Your task to perform on an android device: toggle sleep mode Image 0: 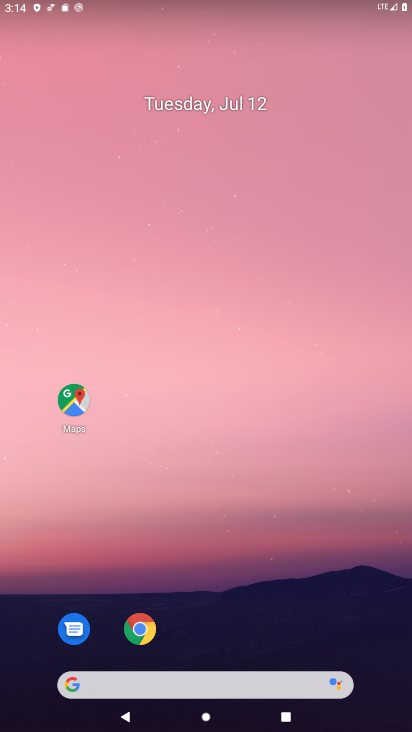
Step 0: press home button
Your task to perform on an android device: toggle sleep mode Image 1: 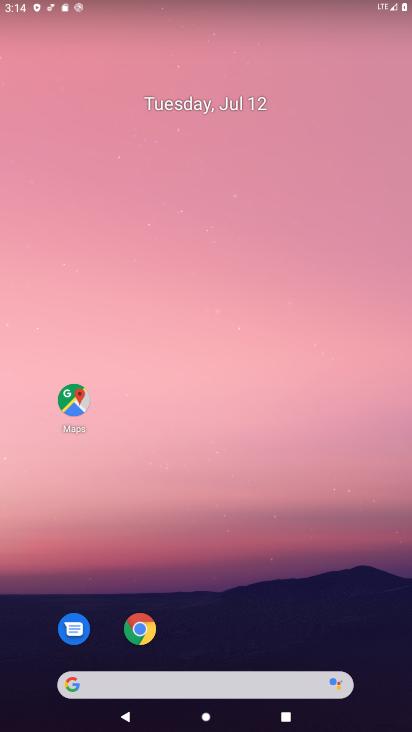
Step 1: drag from (287, 668) to (370, 58)
Your task to perform on an android device: toggle sleep mode Image 2: 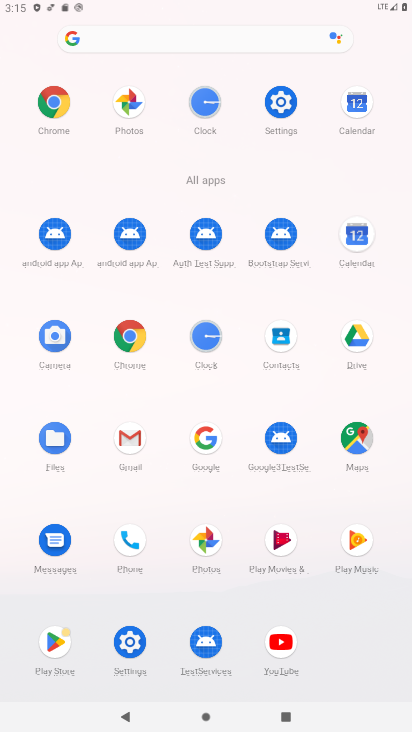
Step 2: drag from (259, 528) to (226, 145)
Your task to perform on an android device: toggle sleep mode Image 3: 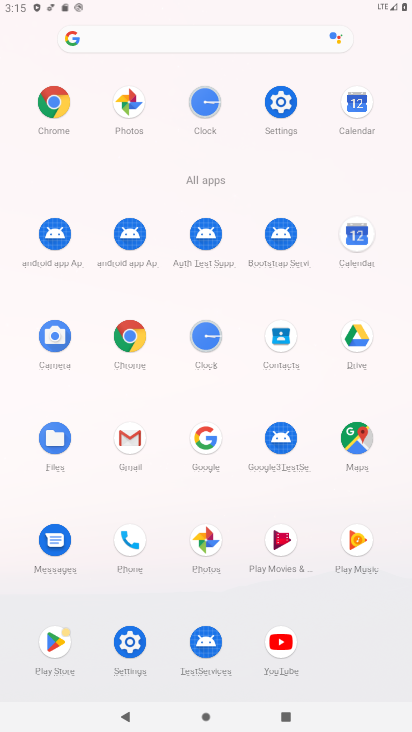
Step 3: click (267, 121)
Your task to perform on an android device: toggle sleep mode Image 4: 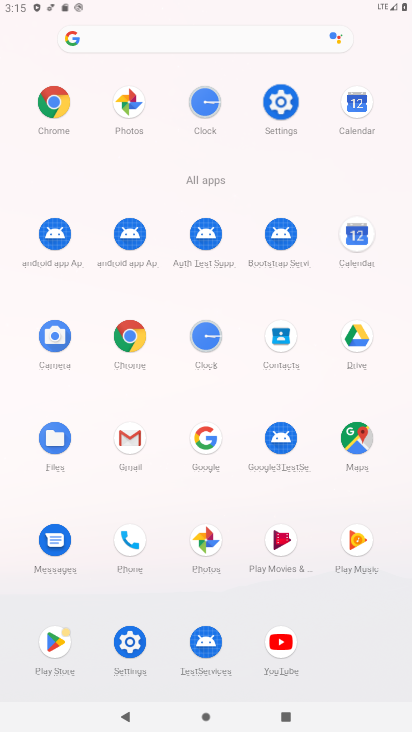
Step 4: click (285, 97)
Your task to perform on an android device: toggle sleep mode Image 5: 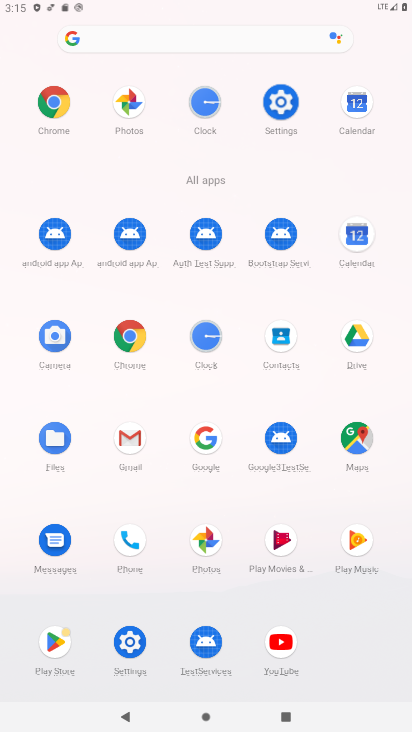
Step 5: click (281, 99)
Your task to perform on an android device: toggle sleep mode Image 6: 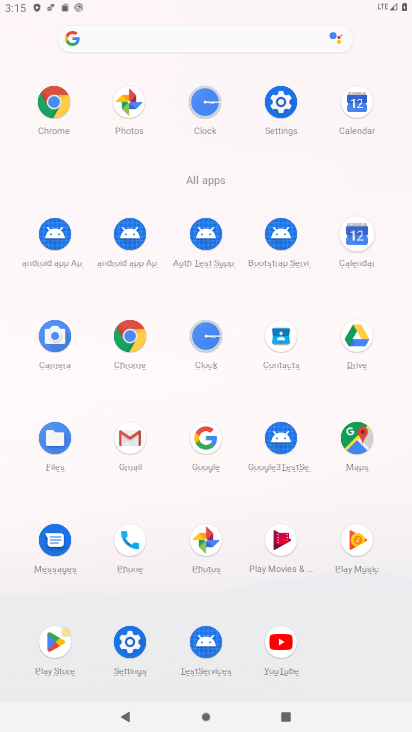
Step 6: click (283, 99)
Your task to perform on an android device: toggle sleep mode Image 7: 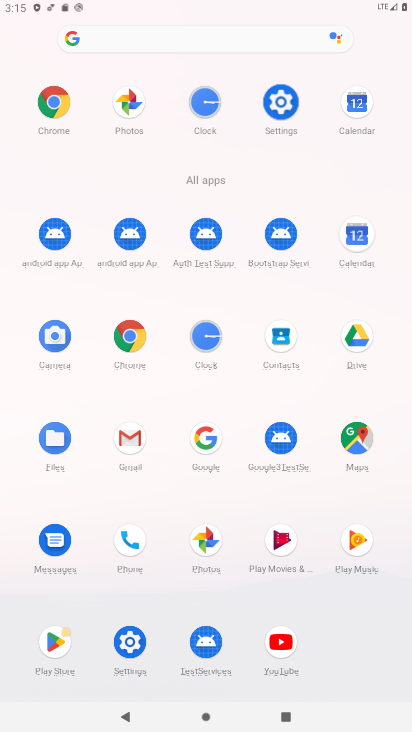
Step 7: click (284, 111)
Your task to perform on an android device: toggle sleep mode Image 8: 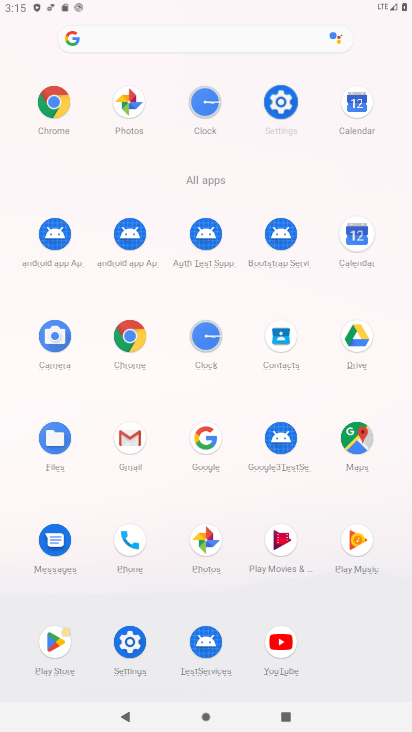
Step 8: click (294, 108)
Your task to perform on an android device: toggle sleep mode Image 9: 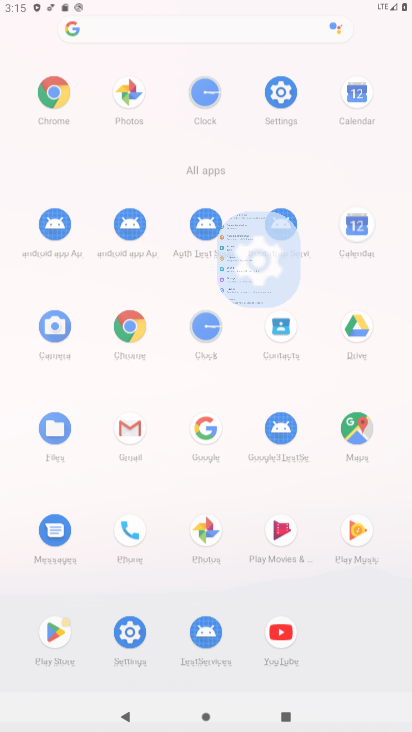
Step 9: click (295, 117)
Your task to perform on an android device: toggle sleep mode Image 10: 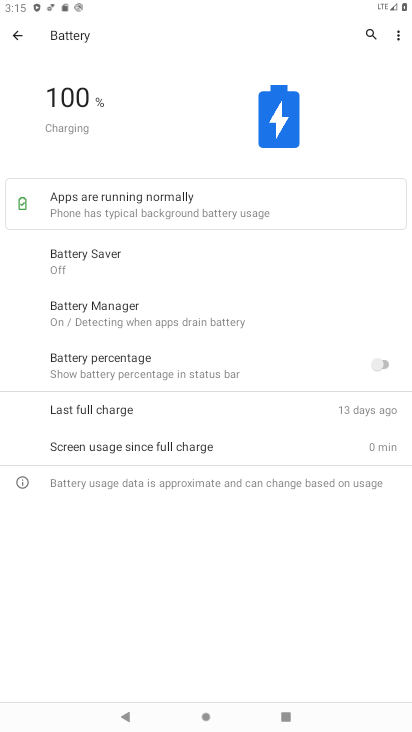
Step 10: click (16, 38)
Your task to perform on an android device: toggle sleep mode Image 11: 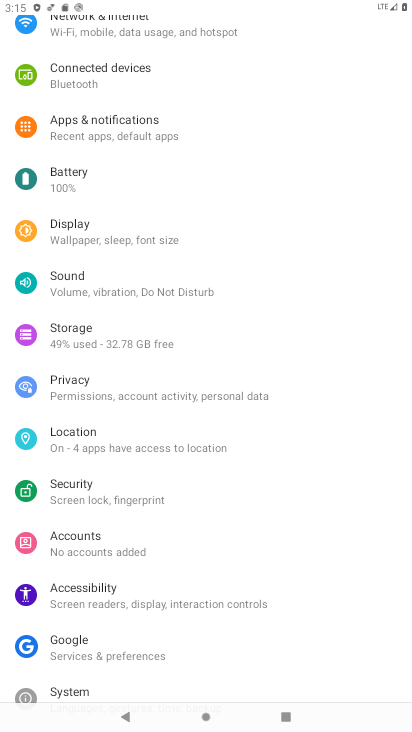
Step 11: click (104, 230)
Your task to perform on an android device: toggle sleep mode Image 12: 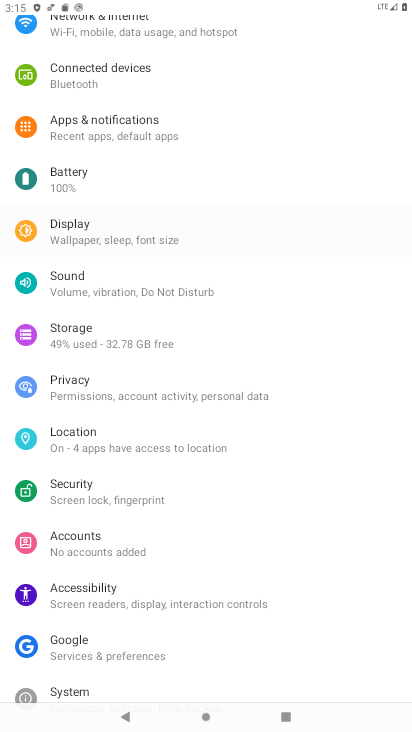
Step 12: click (107, 229)
Your task to perform on an android device: toggle sleep mode Image 13: 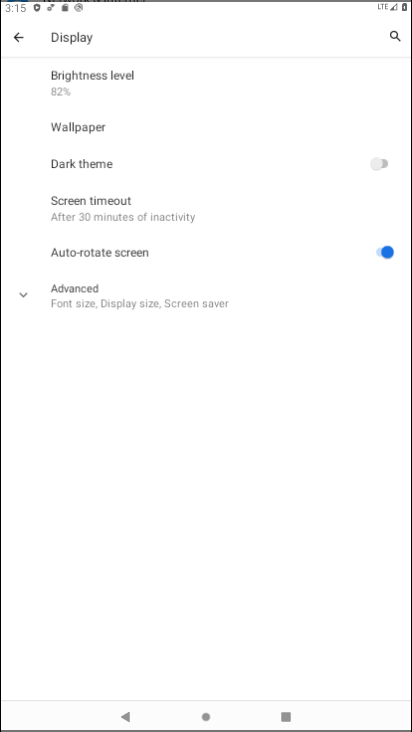
Step 13: click (109, 241)
Your task to perform on an android device: toggle sleep mode Image 14: 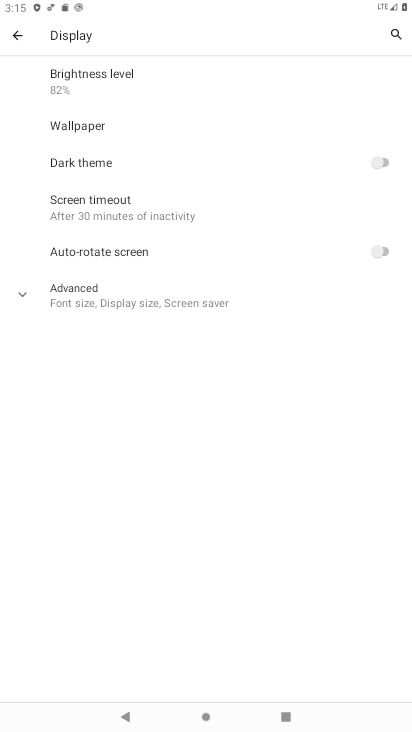
Step 14: click (78, 211)
Your task to perform on an android device: toggle sleep mode Image 15: 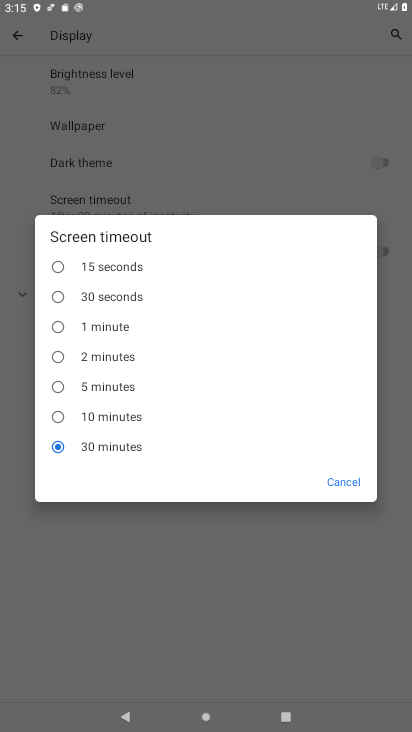
Step 15: click (65, 291)
Your task to perform on an android device: toggle sleep mode Image 16: 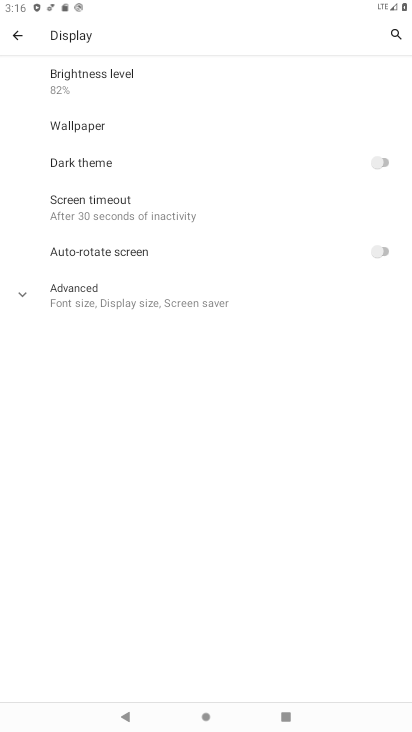
Step 16: click (60, 292)
Your task to perform on an android device: toggle sleep mode Image 17: 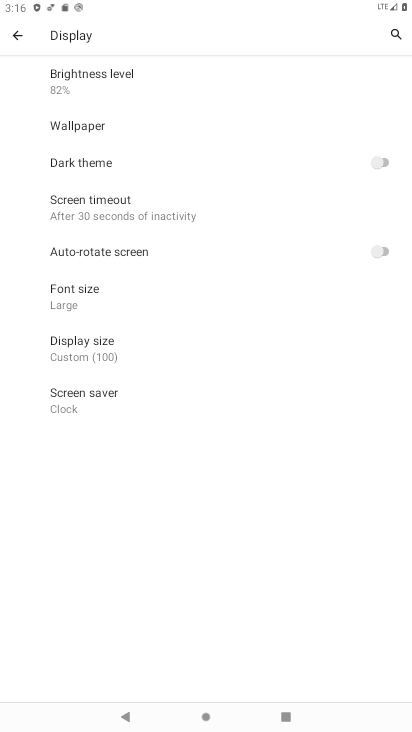
Step 17: click (115, 206)
Your task to perform on an android device: toggle sleep mode Image 18: 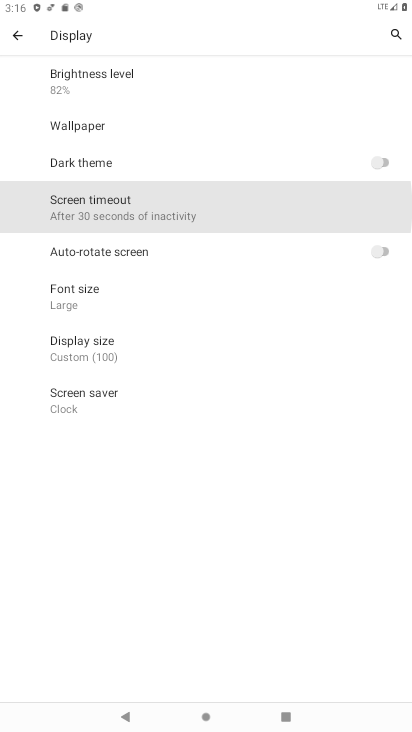
Step 18: click (115, 206)
Your task to perform on an android device: toggle sleep mode Image 19: 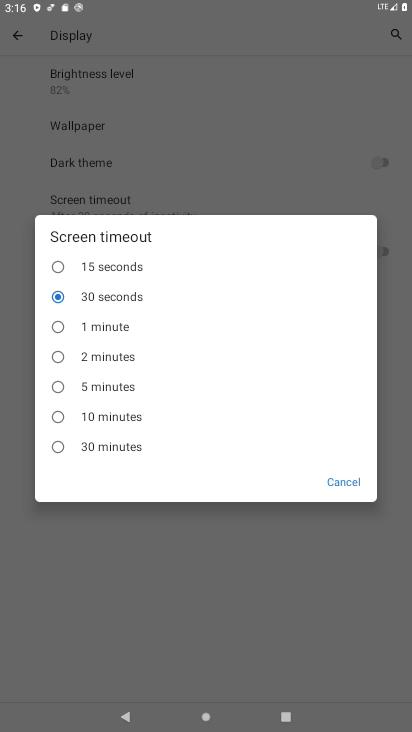
Step 19: click (115, 206)
Your task to perform on an android device: toggle sleep mode Image 20: 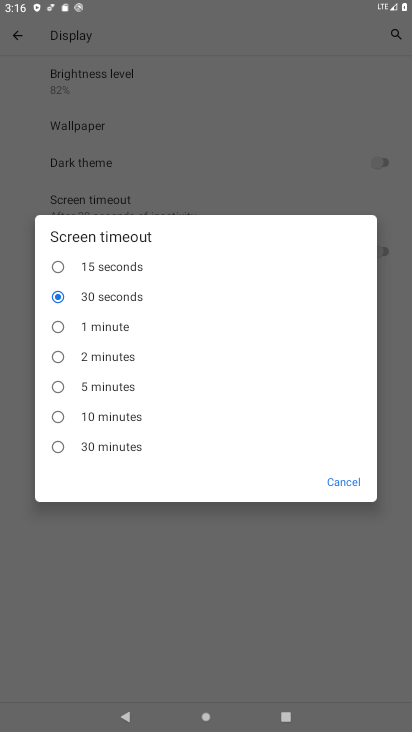
Step 20: click (56, 321)
Your task to perform on an android device: toggle sleep mode Image 21: 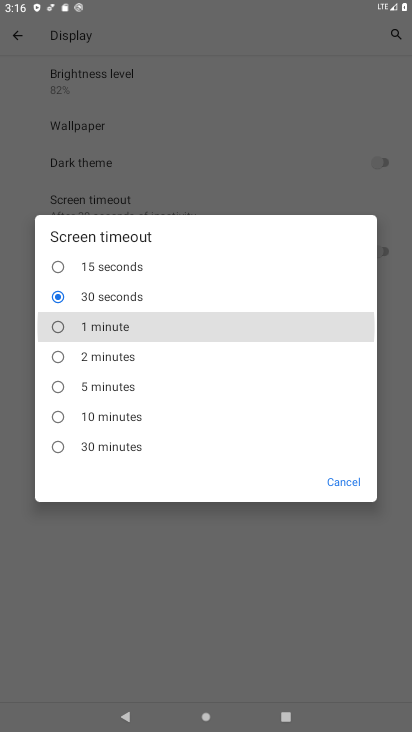
Step 21: click (56, 321)
Your task to perform on an android device: toggle sleep mode Image 22: 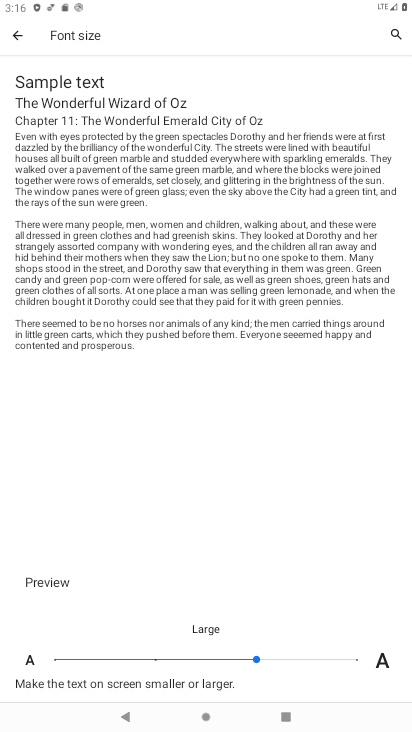
Step 22: task complete